Your task to perform on an android device: Open the calendar and show me this week's events? Image 0: 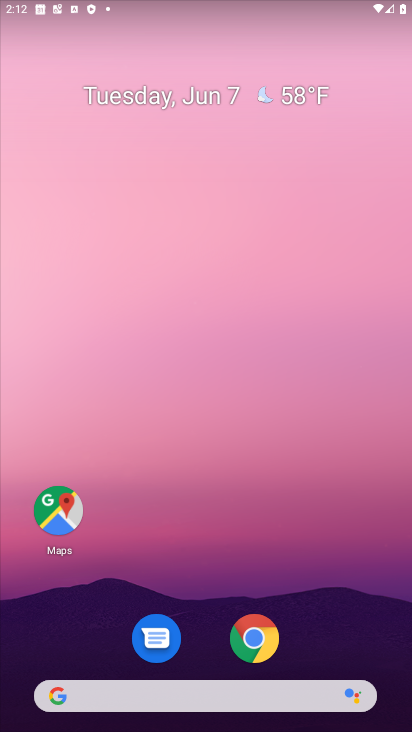
Step 0: drag from (195, 624) to (82, 226)
Your task to perform on an android device: Open the calendar and show me this week's events? Image 1: 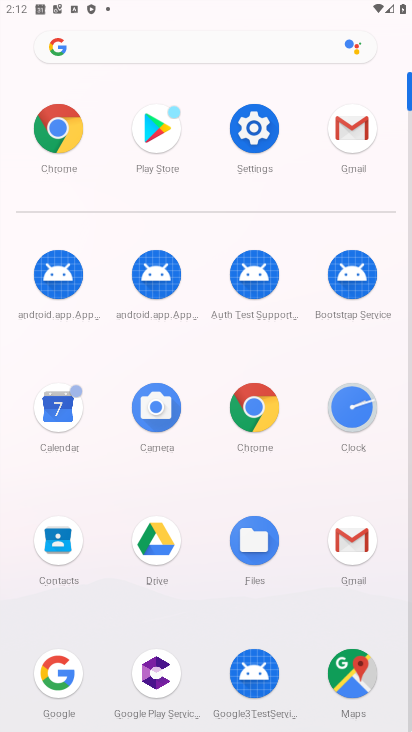
Step 1: click (54, 406)
Your task to perform on an android device: Open the calendar and show me this week's events? Image 2: 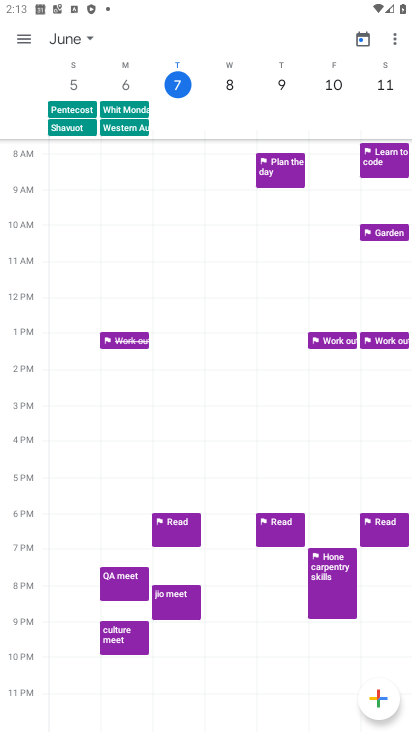
Step 2: click (89, 35)
Your task to perform on an android device: Open the calendar and show me this week's events? Image 3: 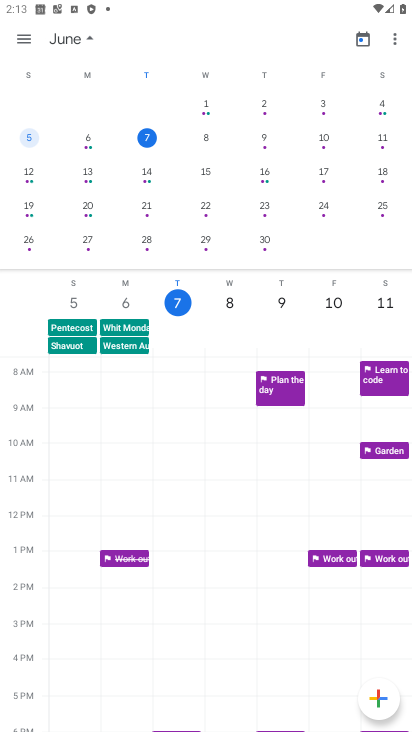
Step 3: click (44, 148)
Your task to perform on an android device: Open the calendar and show me this week's events? Image 4: 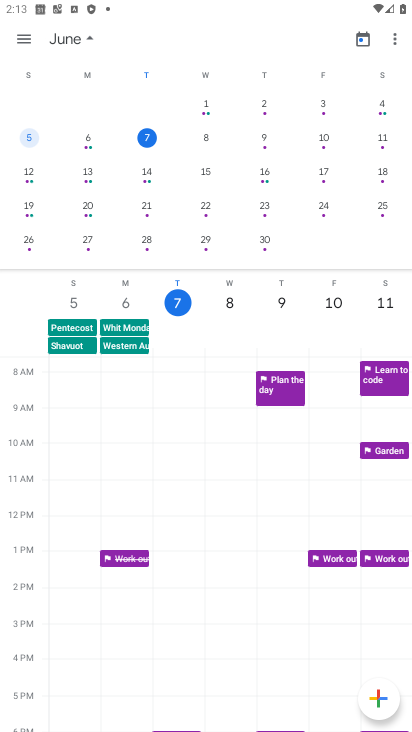
Step 4: click (80, 139)
Your task to perform on an android device: Open the calendar and show me this week's events? Image 5: 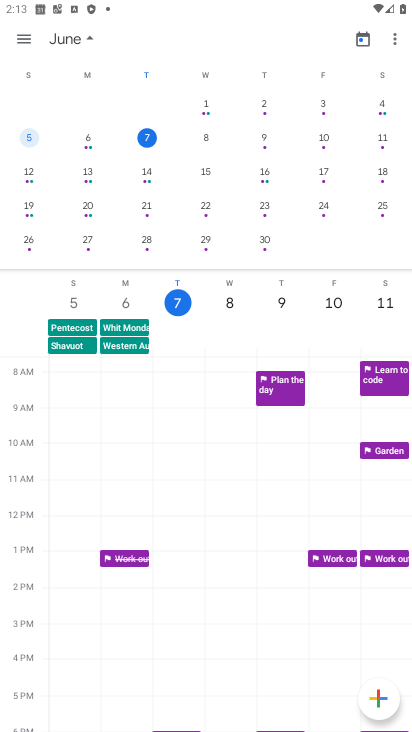
Step 5: click (205, 138)
Your task to perform on an android device: Open the calendar and show me this week's events? Image 6: 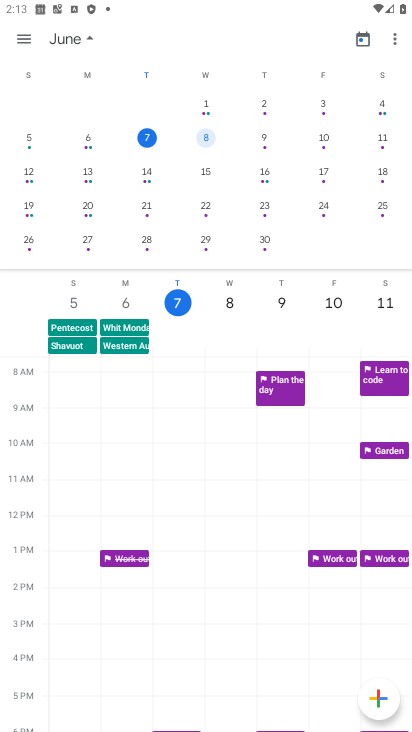
Step 6: click (264, 149)
Your task to perform on an android device: Open the calendar and show me this week's events? Image 7: 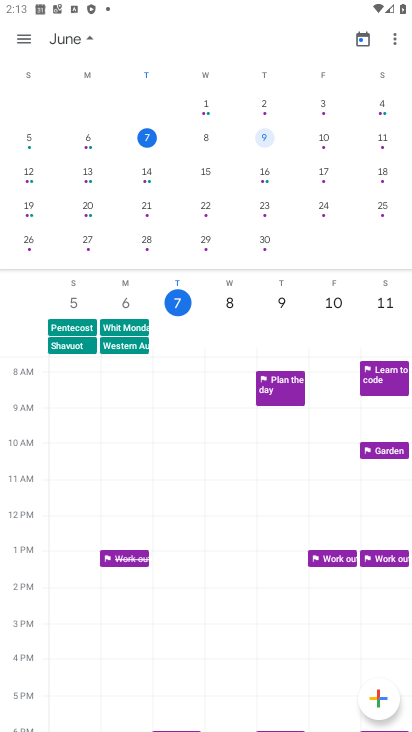
Step 7: click (330, 155)
Your task to perform on an android device: Open the calendar and show me this week's events? Image 8: 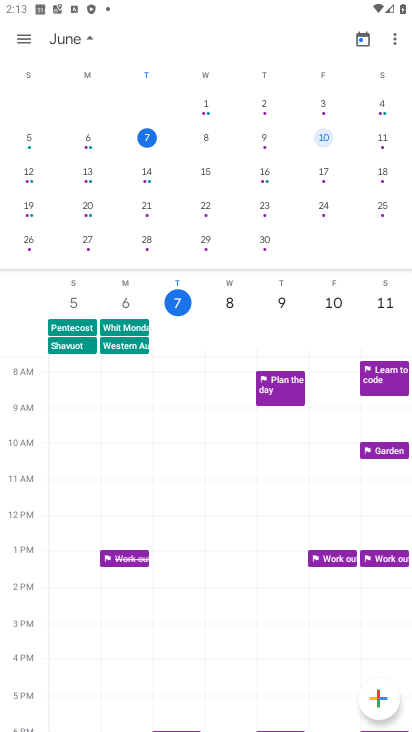
Step 8: click (373, 140)
Your task to perform on an android device: Open the calendar and show me this week's events? Image 9: 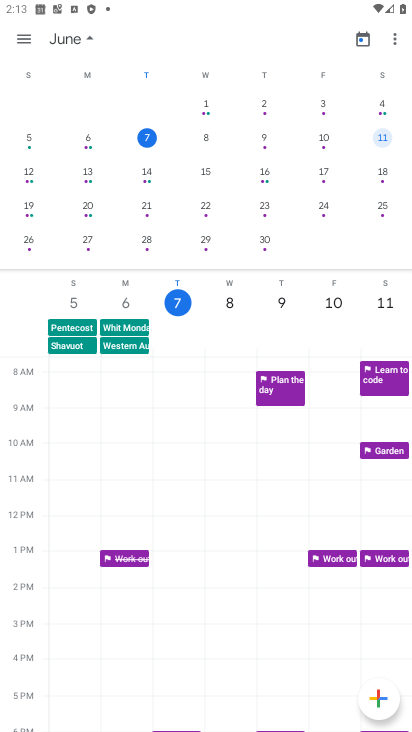
Step 9: task complete